Your task to perform on an android device: toggle location history Image 0: 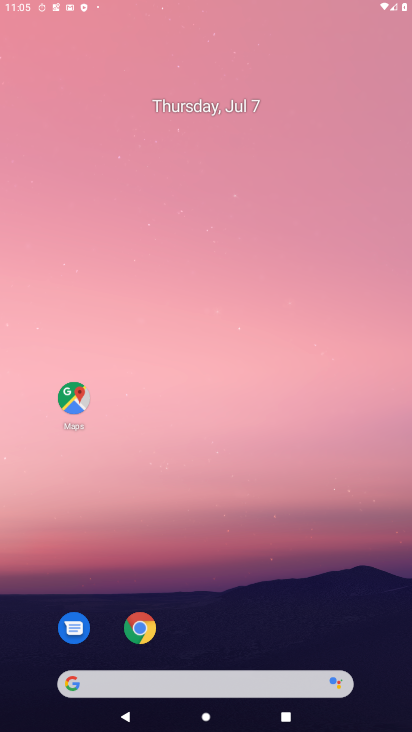
Step 0: press home button
Your task to perform on an android device: toggle location history Image 1: 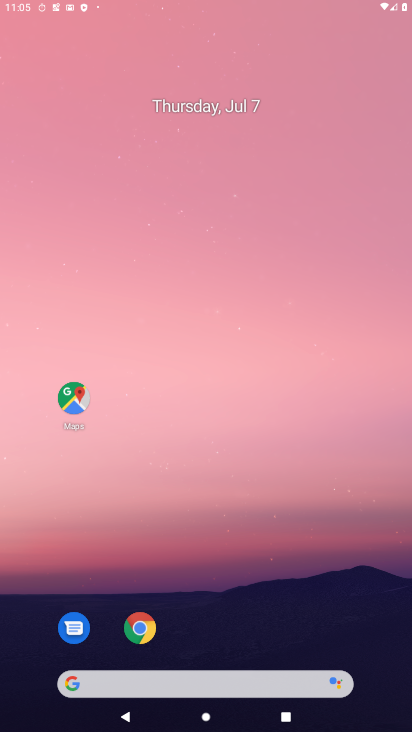
Step 1: click (376, 132)
Your task to perform on an android device: toggle location history Image 2: 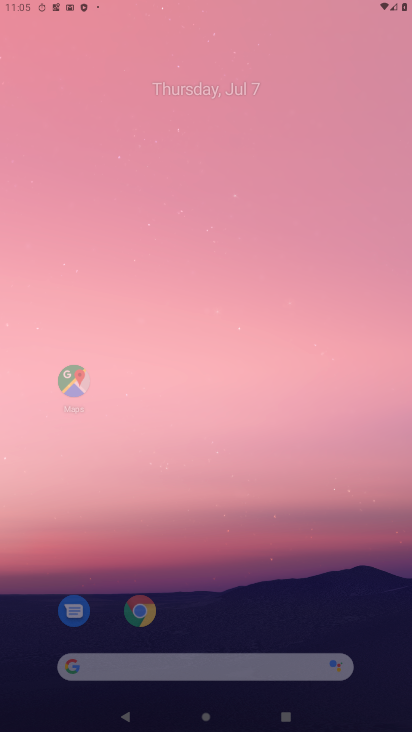
Step 2: drag from (325, 583) to (299, 204)
Your task to perform on an android device: toggle location history Image 3: 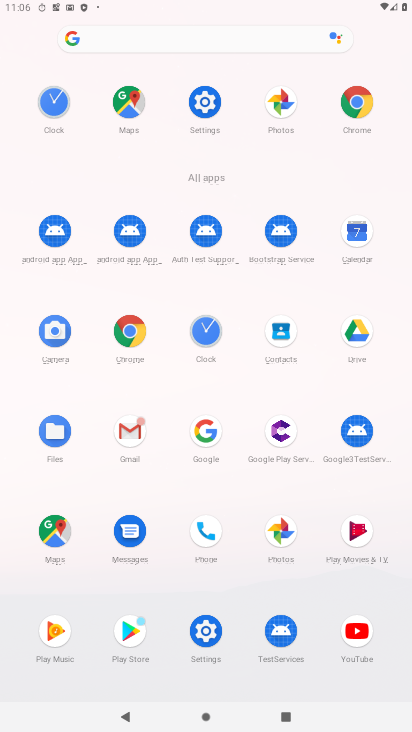
Step 3: click (60, 545)
Your task to perform on an android device: toggle location history Image 4: 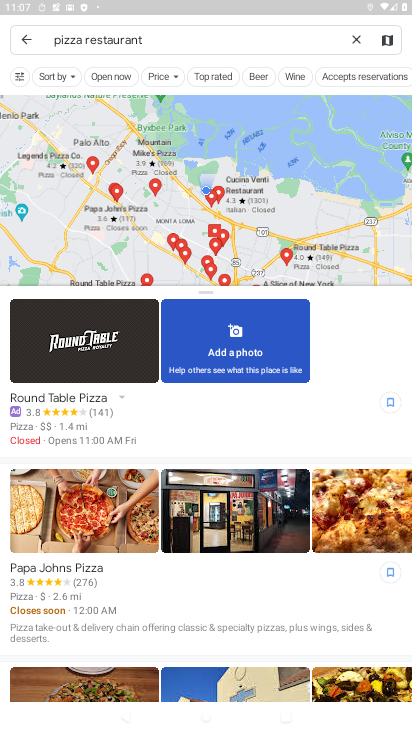
Step 4: click (23, 33)
Your task to perform on an android device: toggle location history Image 5: 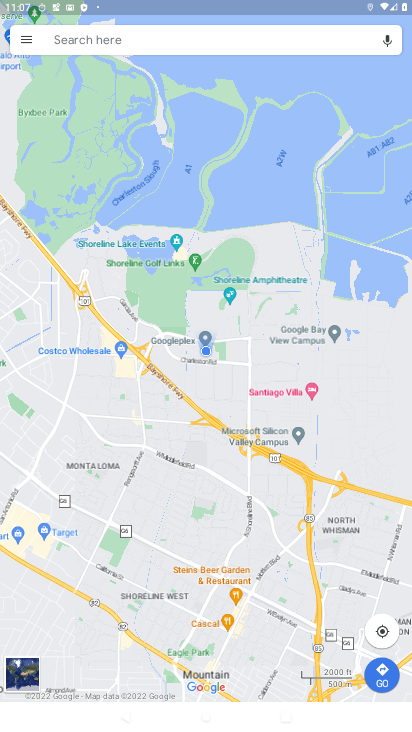
Step 5: click (24, 39)
Your task to perform on an android device: toggle location history Image 6: 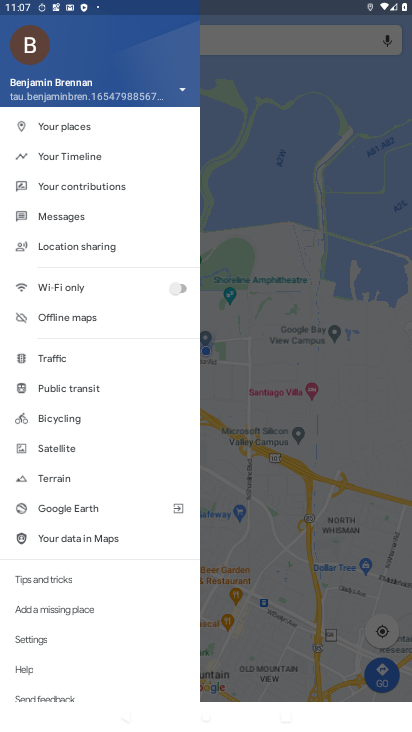
Step 6: click (69, 159)
Your task to perform on an android device: toggle location history Image 7: 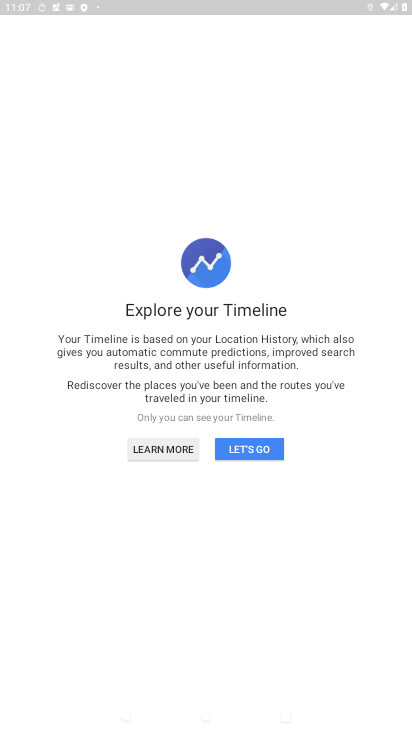
Step 7: click (249, 442)
Your task to perform on an android device: toggle location history Image 8: 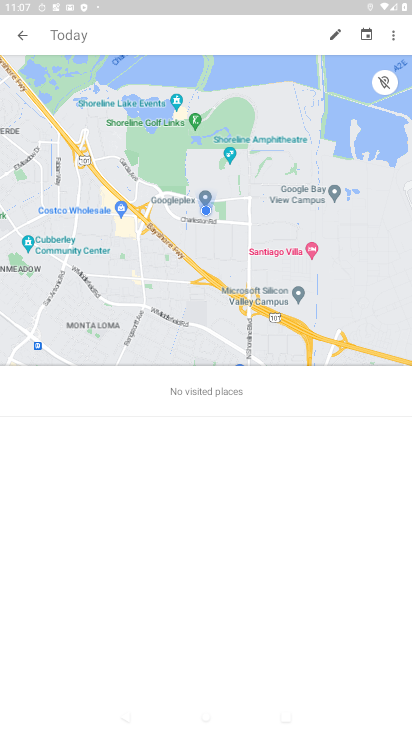
Step 8: click (389, 36)
Your task to perform on an android device: toggle location history Image 9: 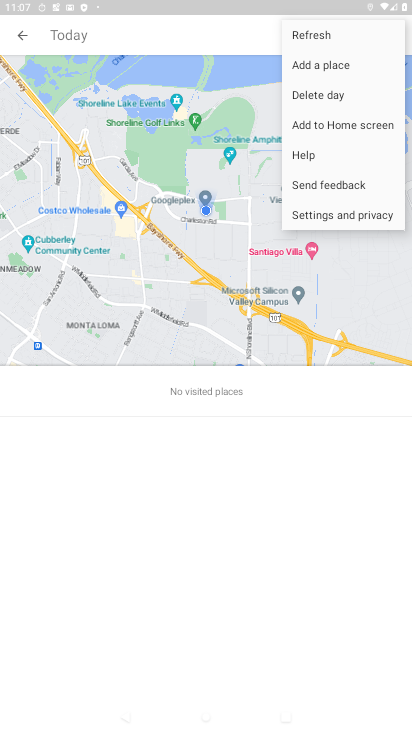
Step 9: click (337, 221)
Your task to perform on an android device: toggle location history Image 10: 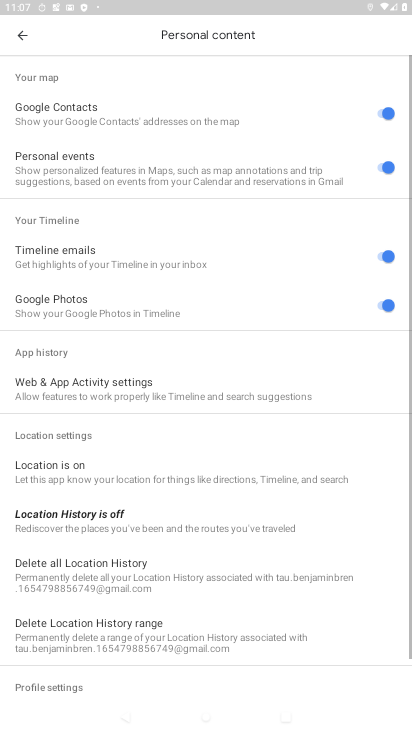
Step 10: drag from (343, 626) to (242, 175)
Your task to perform on an android device: toggle location history Image 11: 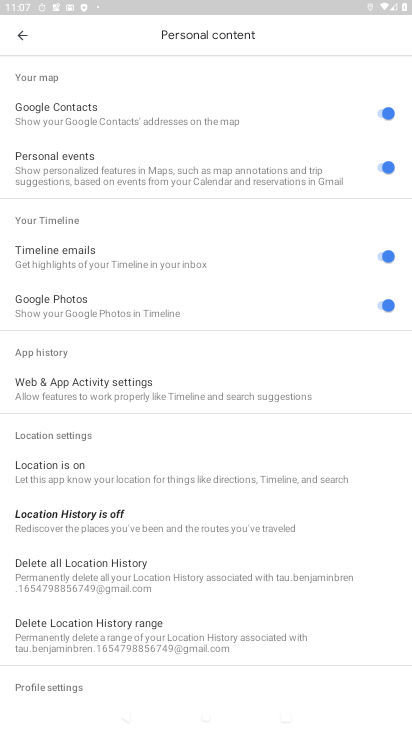
Step 11: click (71, 520)
Your task to perform on an android device: toggle location history Image 12: 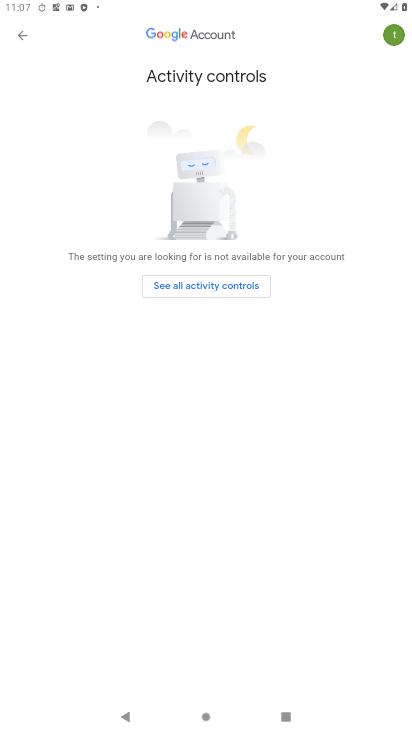
Step 12: click (23, 40)
Your task to perform on an android device: toggle location history Image 13: 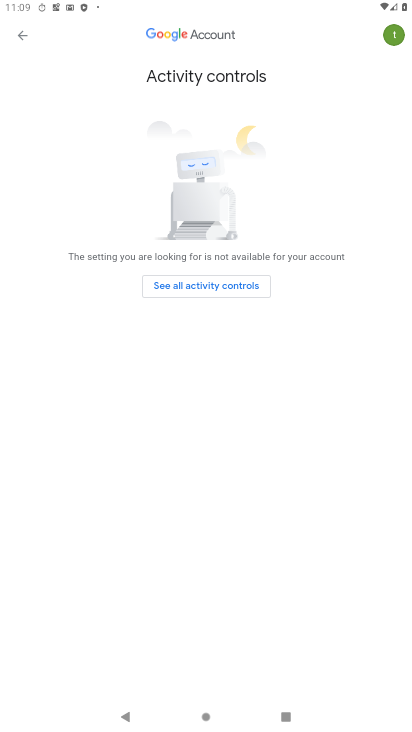
Step 13: press back button
Your task to perform on an android device: toggle location history Image 14: 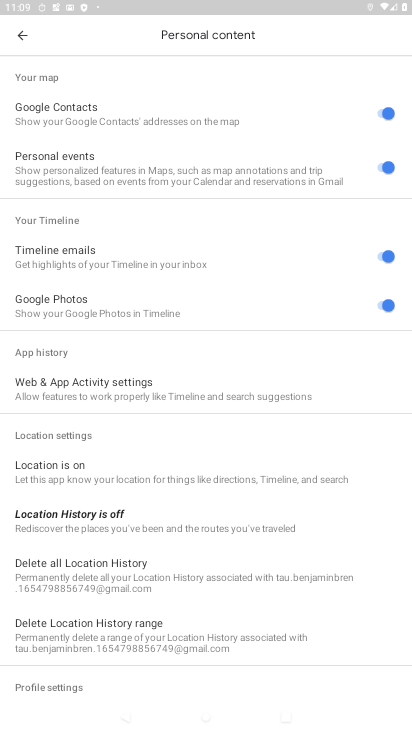
Step 14: click (123, 522)
Your task to perform on an android device: toggle location history Image 15: 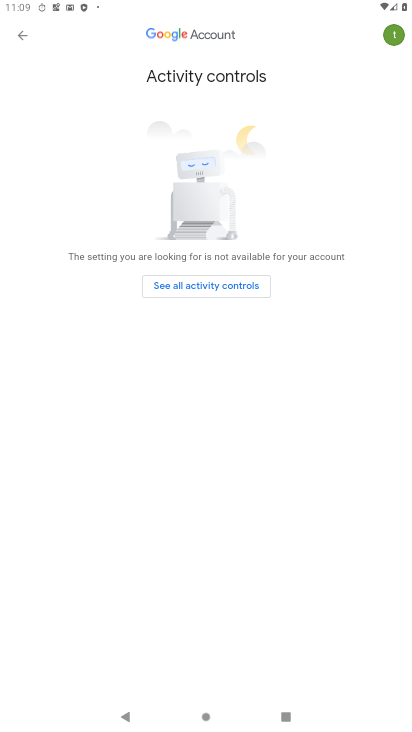
Step 15: click (209, 292)
Your task to perform on an android device: toggle location history Image 16: 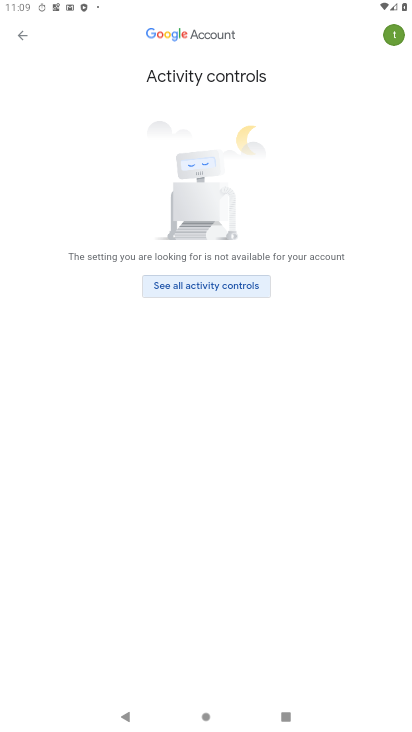
Step 16: press back button
Your task to perform on an android device: toggle location history Image 17: 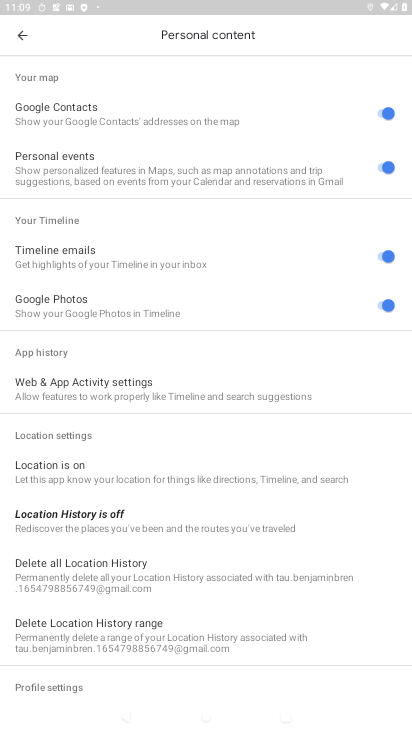
Step 17: click (74, 483)
Your task to perform on an android device: toggle location history Image 18: 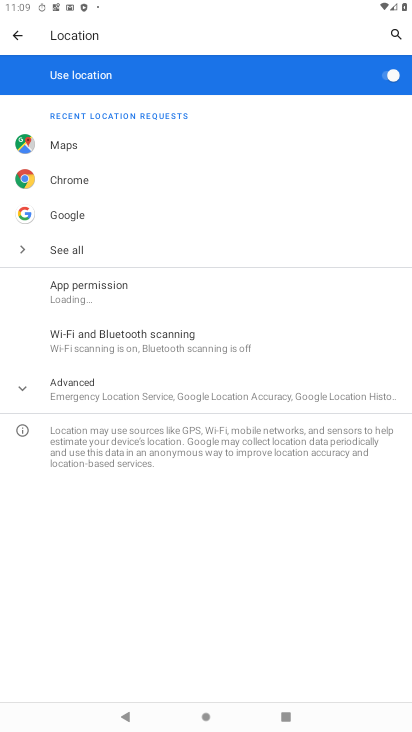
Step 18: press back button
Your task to perform on an android device: toggle location history Image 19: 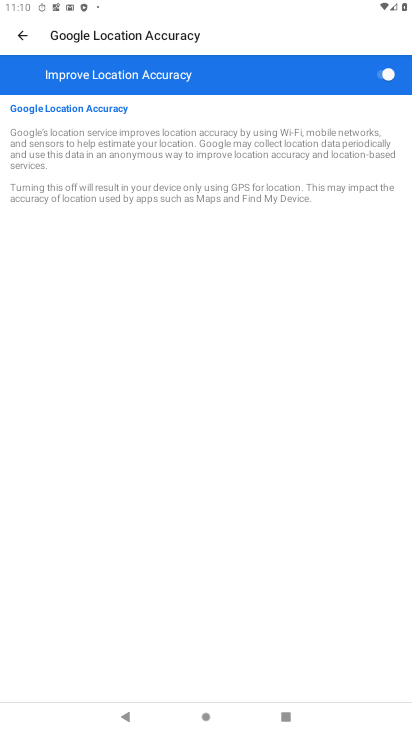
Step 19: click (19, 42)
Your task to perform on an android device: toggle location history Image 20: 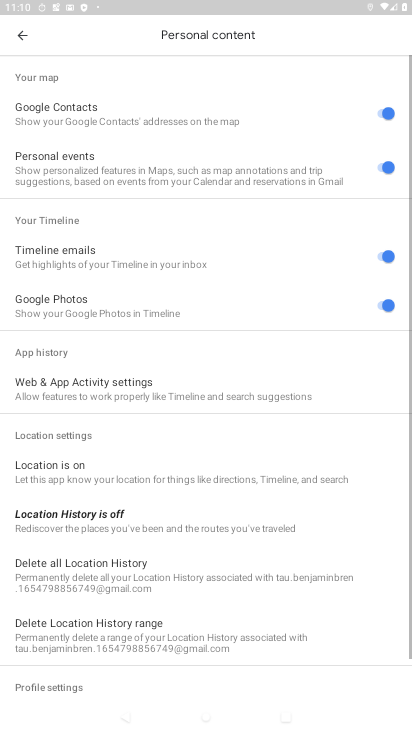
Step 20: press back button
Your task to perform on an android device: toggle location history Image 21: 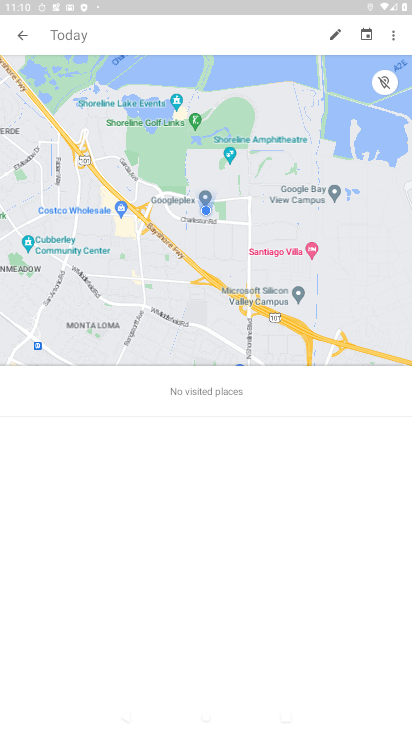
Step 21: click (394, 34)
Your task to perform on an android device: toggle location history Image 22: 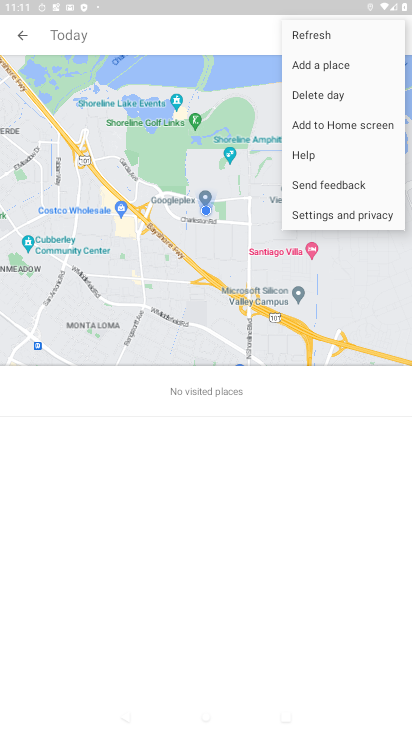
Step 22: click (330, 220)
Your task to perform on an android device: toggle location history Image 23: 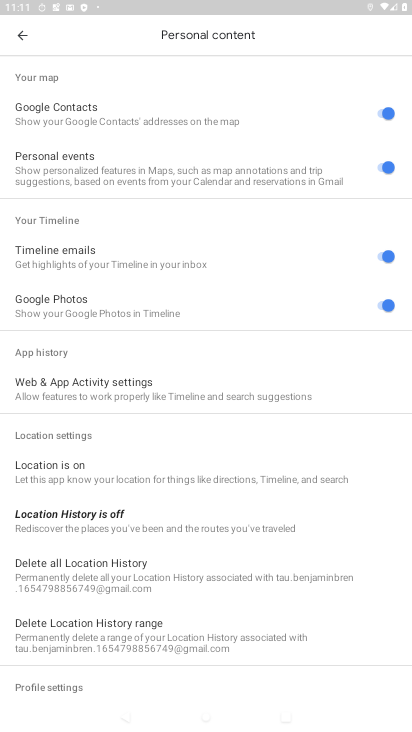
Step 23: click (217, 529)
Your task to perform on an android device: toggle location history Image 24: 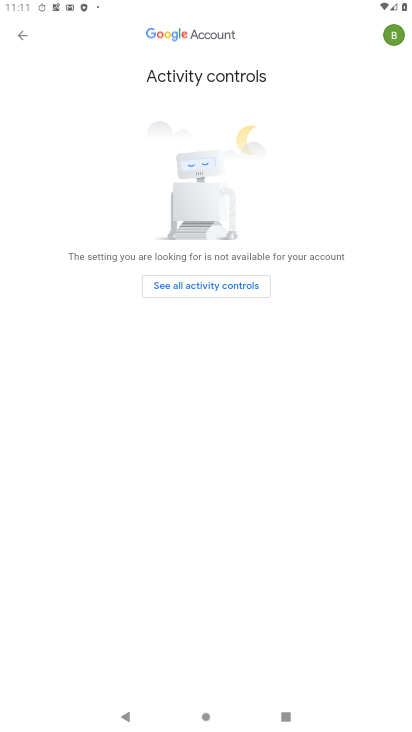
Step 24: click (223, 289)
Your task to perform on an android device: toggle location history Image 25: 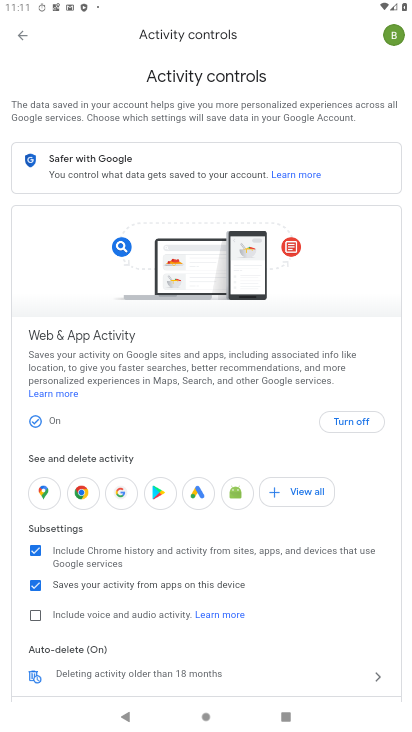
Step 25: drag from (287, 609) to (217, 489)
Your task to perform on an android device: toggle location history Image 26: 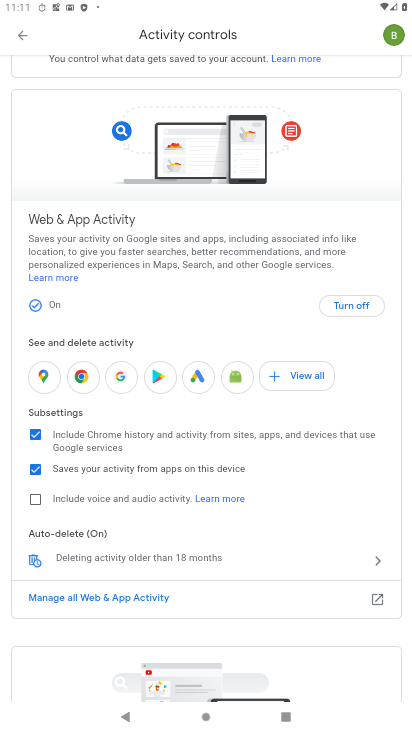
Step 26: click (329, 311)
Your task to perform on an android device: toggle location history Image 27: 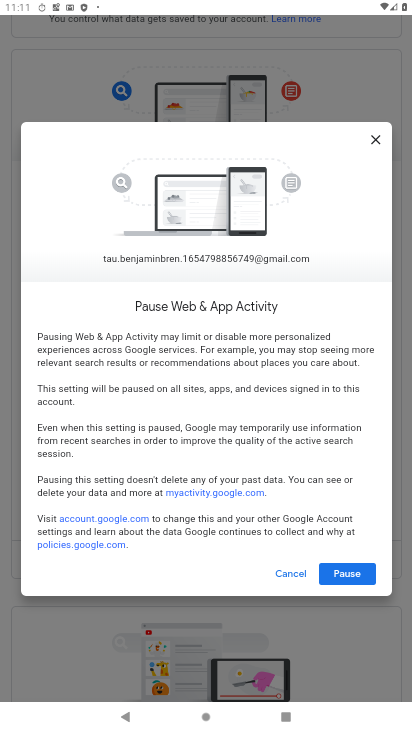
Step 27: click (361, 565)
Your task to perform on an android device: toggle location history Image 28: 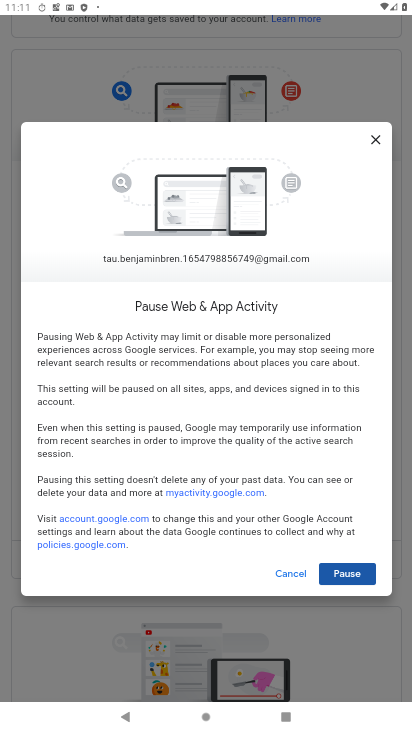
Step 28: click (361, 567)
Your task to perform on an android device: toggle location history Image 29: 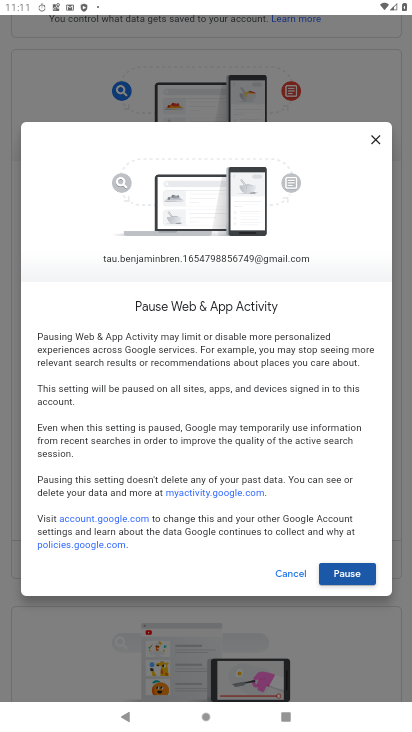
Step 29: click (361, 567)
Your task to perform on an android device: toggle location history Image 30: 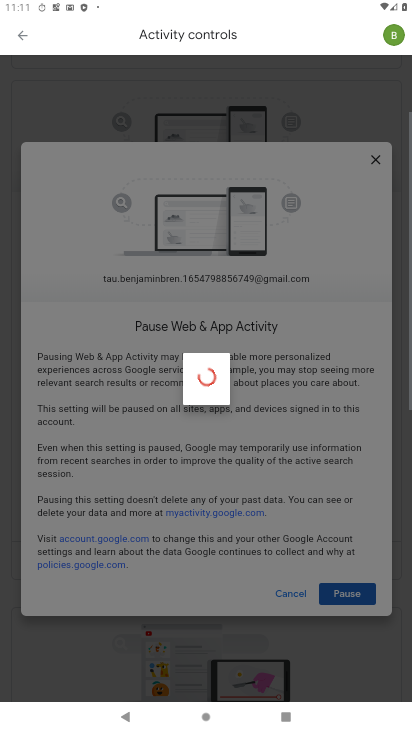
Step 30: click (357, 574)
Your task to perform on an android device: toggle location history Image 31: 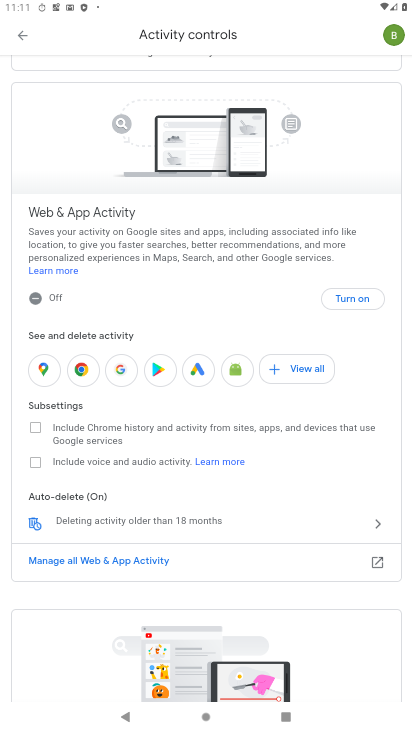
Step 31: click (265, 510)
Your task to perform on an android device: toggle location history Image 32: 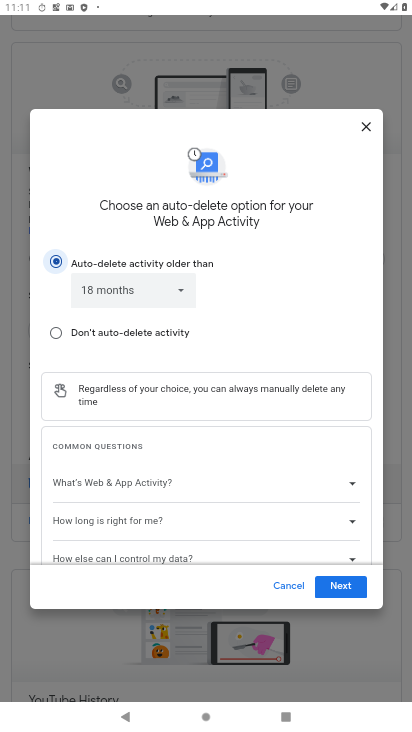
Step 32: task complete